Your task to perform on an android device: install app "Google Find My Device" Image 0: 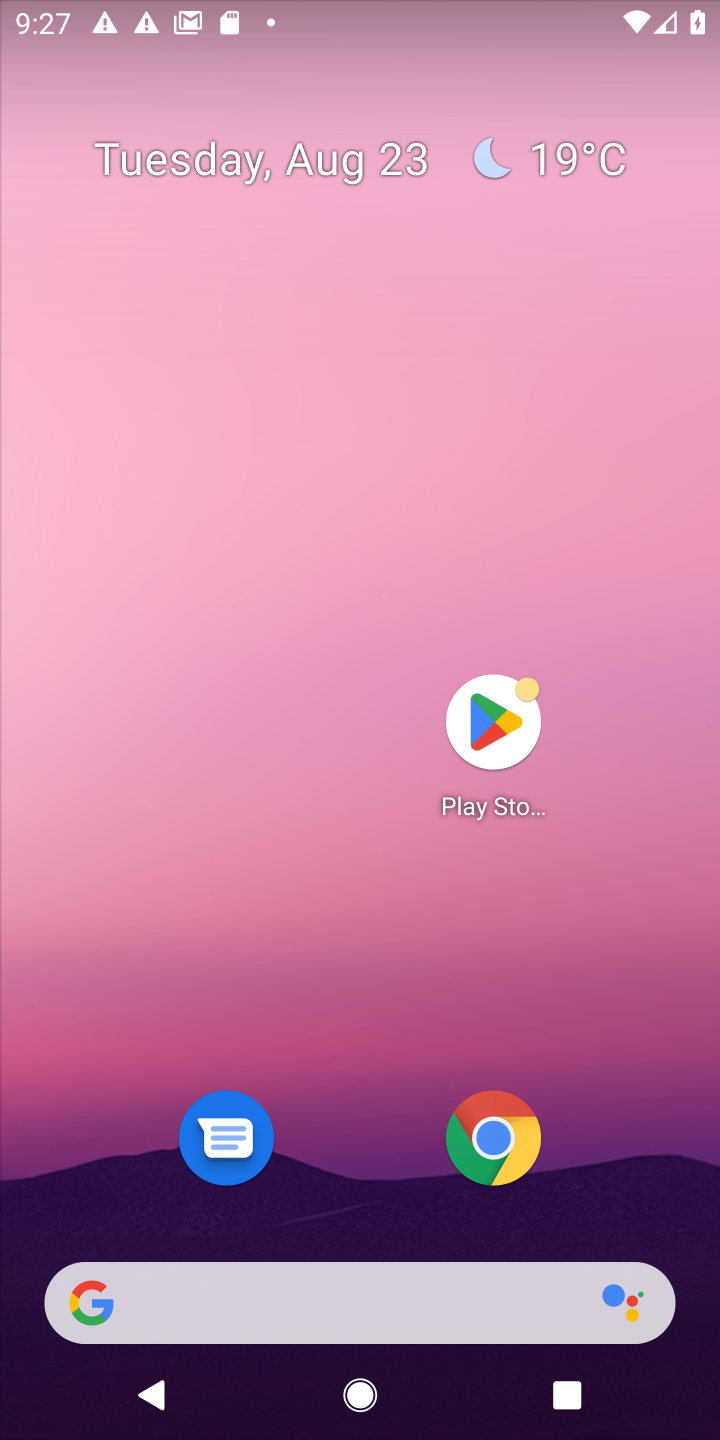
Step 0: press home button
Your task to perform on an android device: install app "Google Find My Device" Image 1: 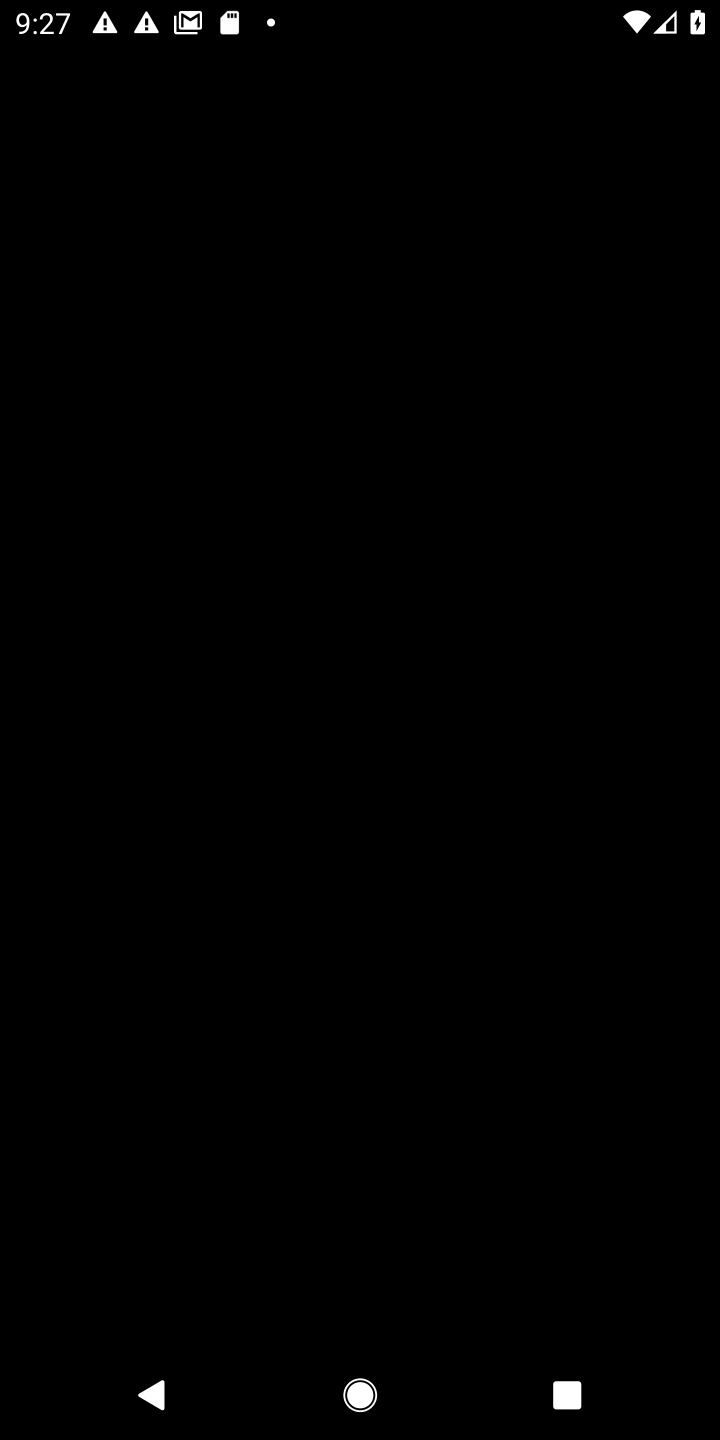
Step 1: press home button
Your task to perform on an android device: install app "Google Find My Device" Image 2: 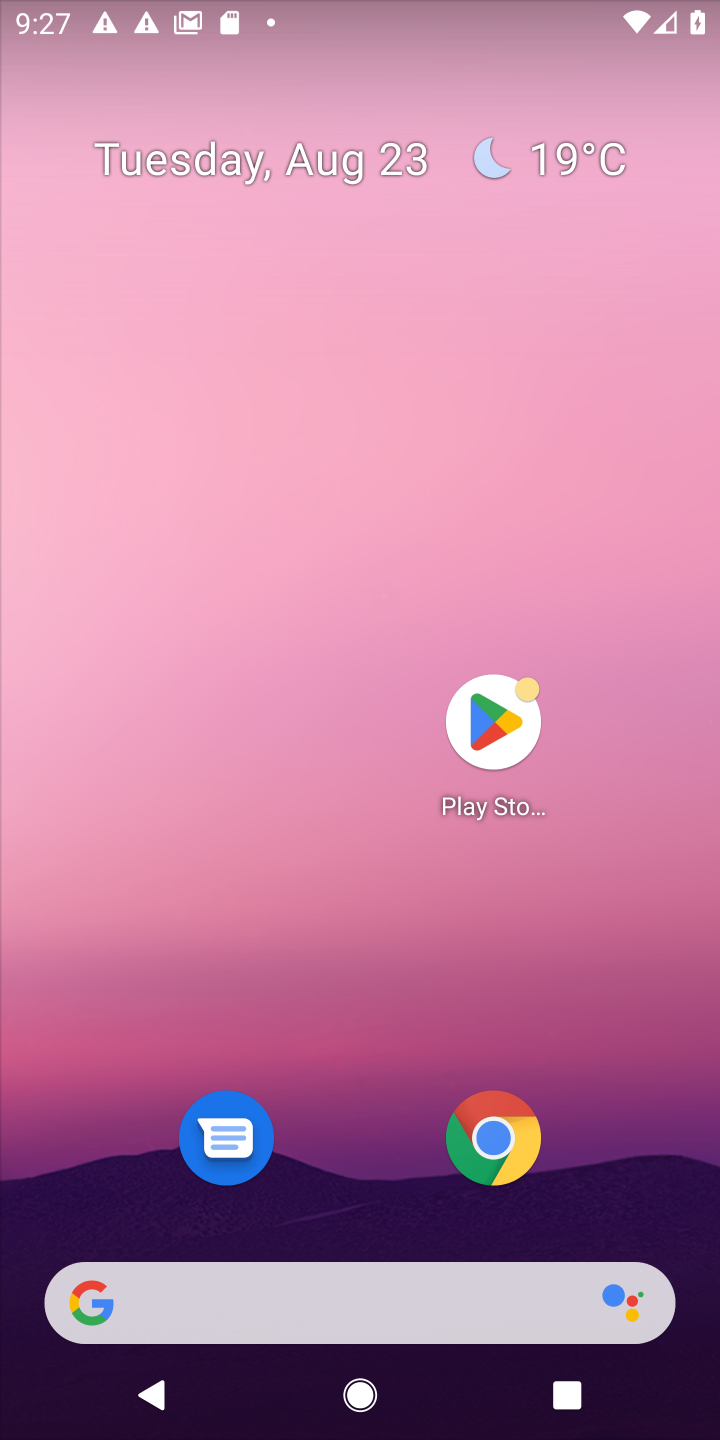
Step 2: click (457, 726)
Your task to perform on an android device: install app "Google Find My Device" Image 3: 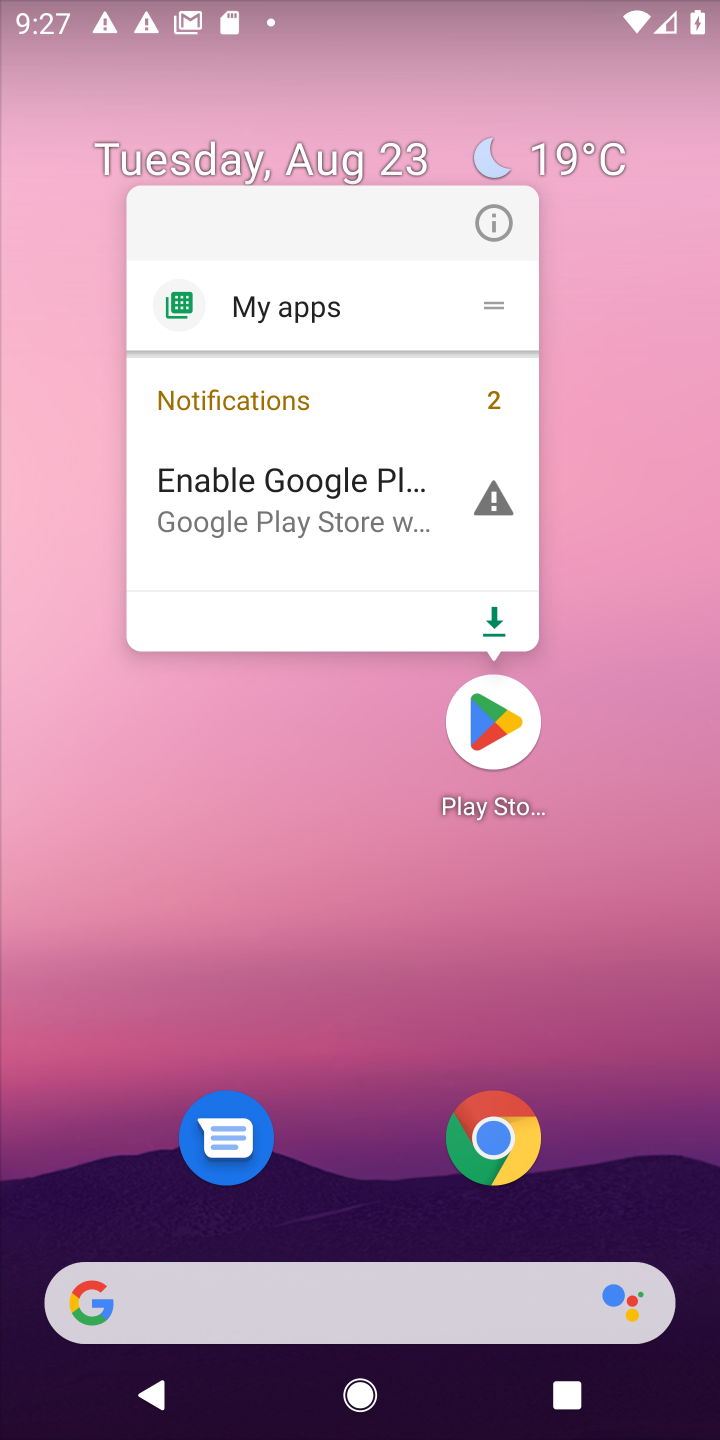
Step 3: click (502, 724)
Your task to perform on an android device: install app "Google Find My Device" Image 4: 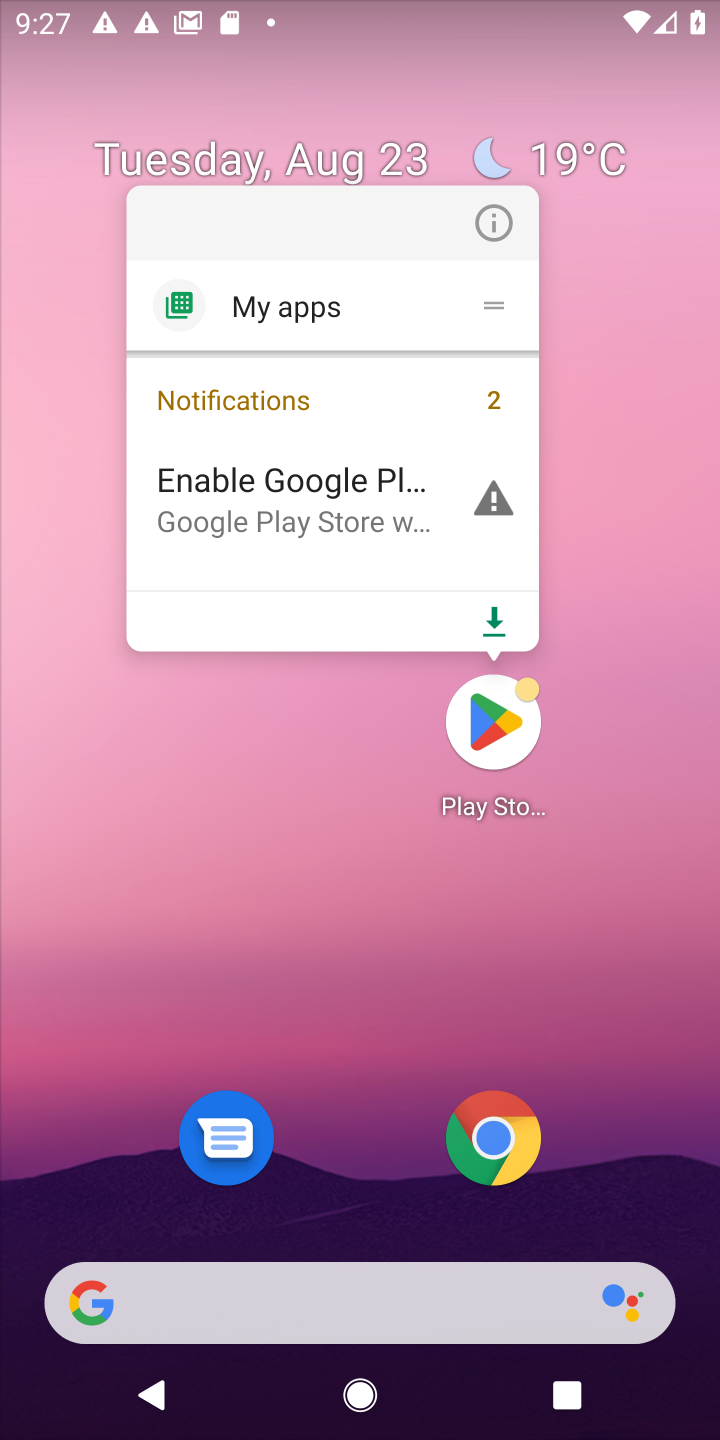
Step 4: click (502, 734)
Your task to perform on an android device: install app "Google Find My Device" Image 5: 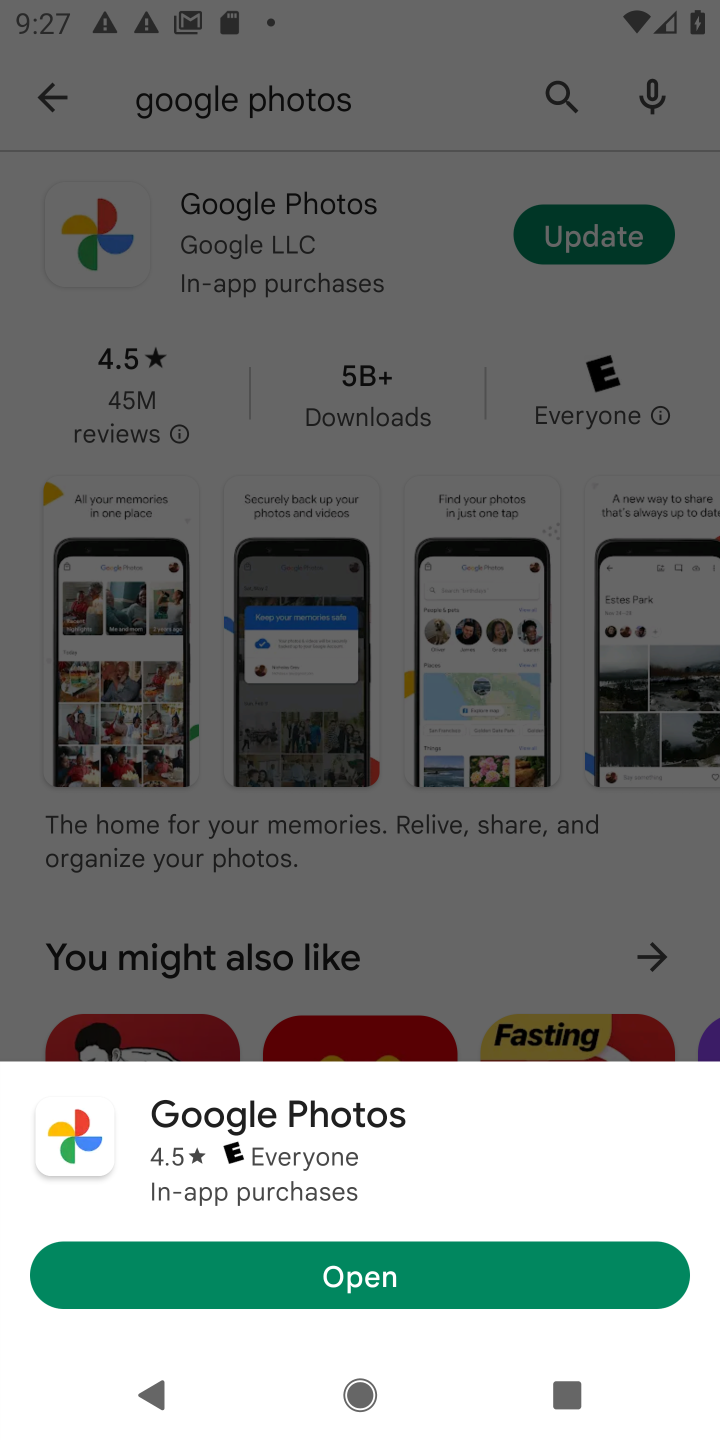
Step 5: click (558, 86)
Your task to perform on an android device: install app "Google Find My Device" Image 6: 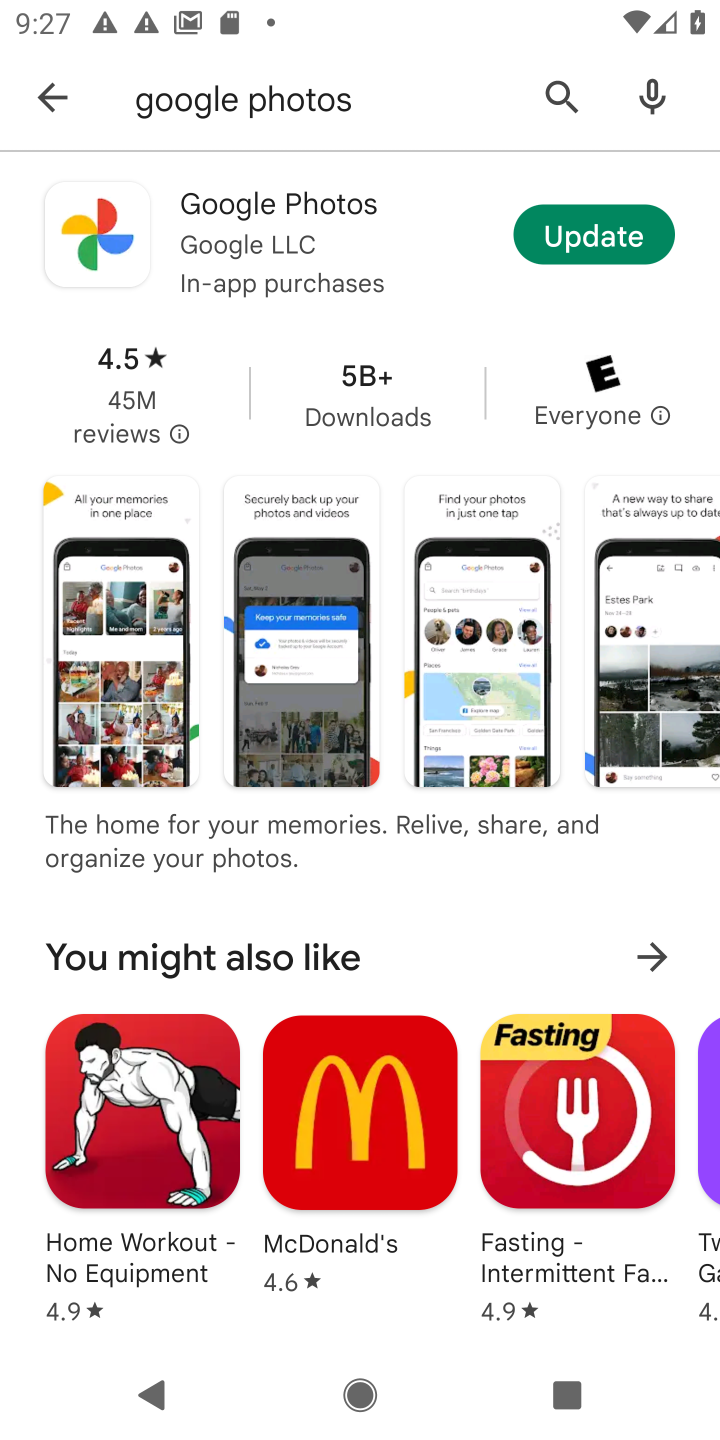
Step 6: click (558, 90)
Your task to perform on an android device: install app "Google Find My Device" Image 7: 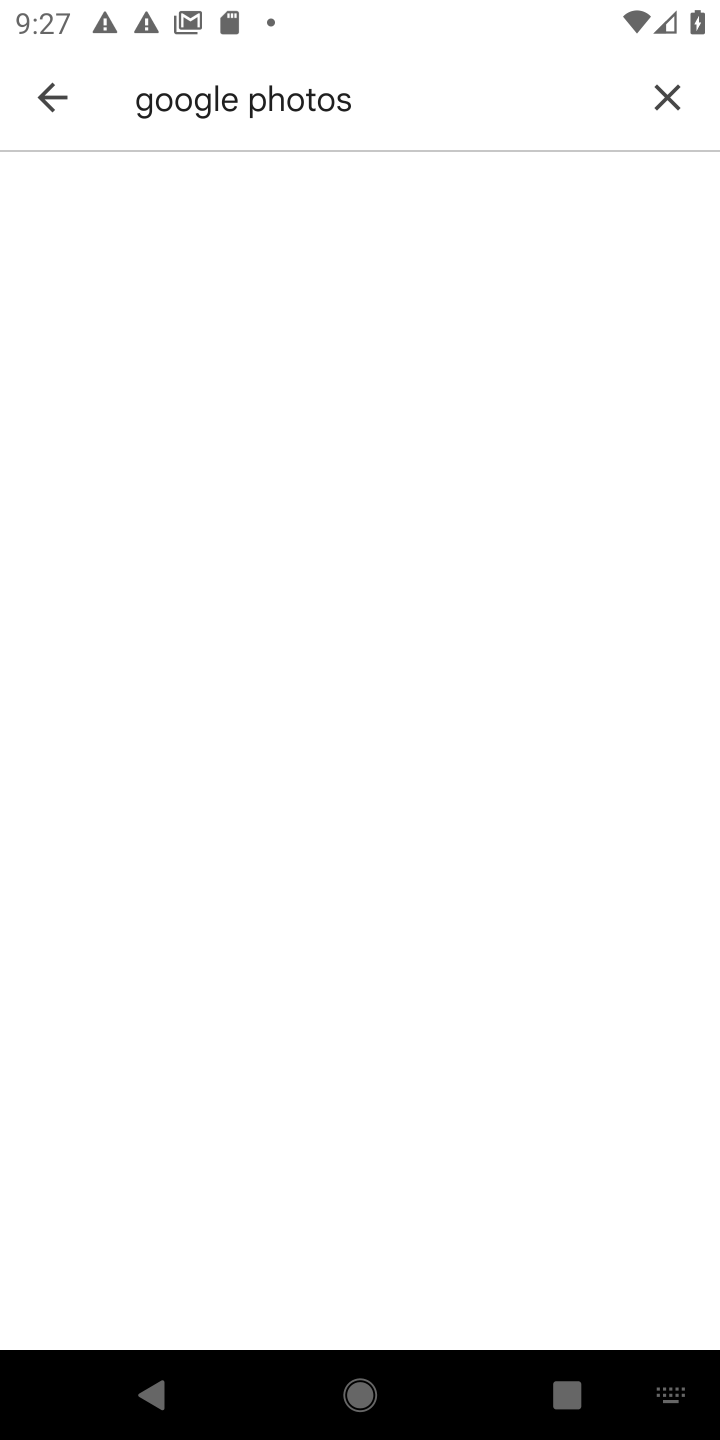
Step 7: click (563, 97)
Your task to perform on an android device: install app "Google Find My Device" Image 8: 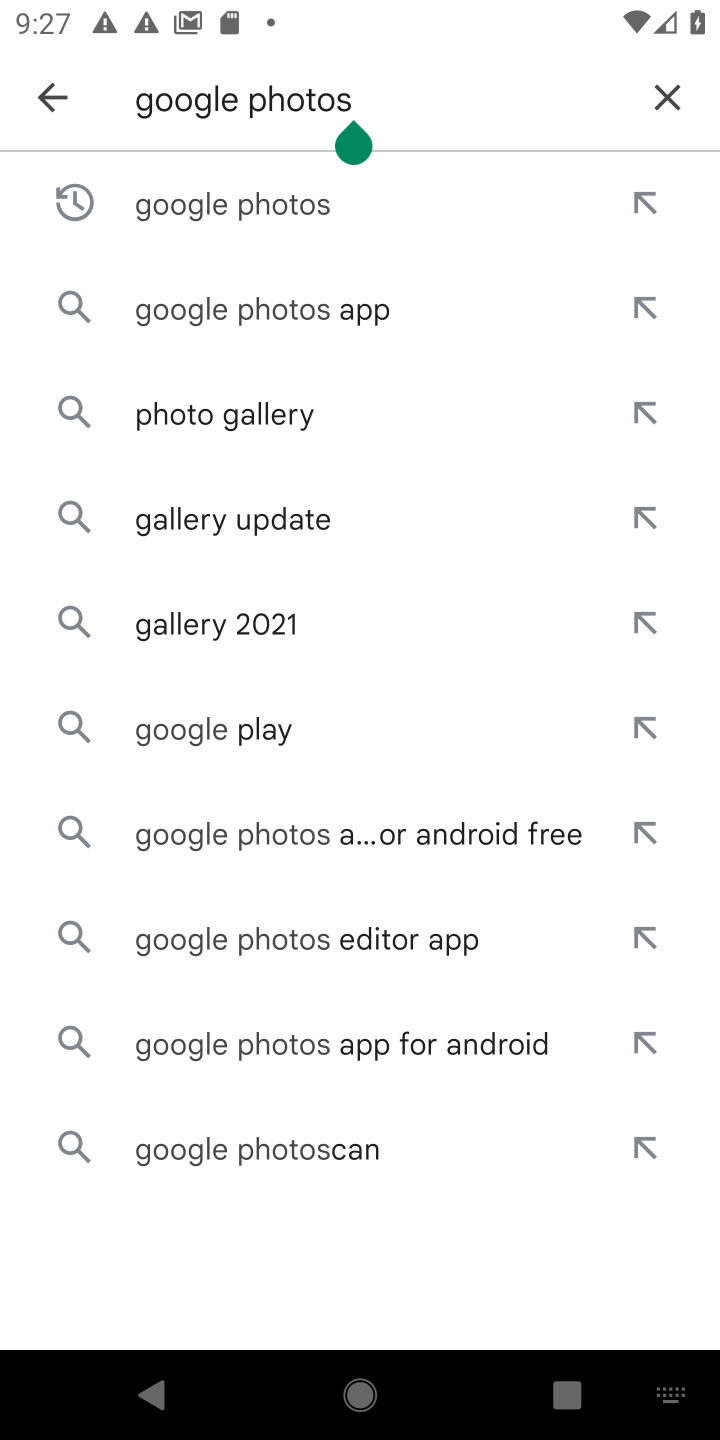
Step 8: click (670, 90)
Your task to perform on an android device: install app "Google Find My Device" Image 9: 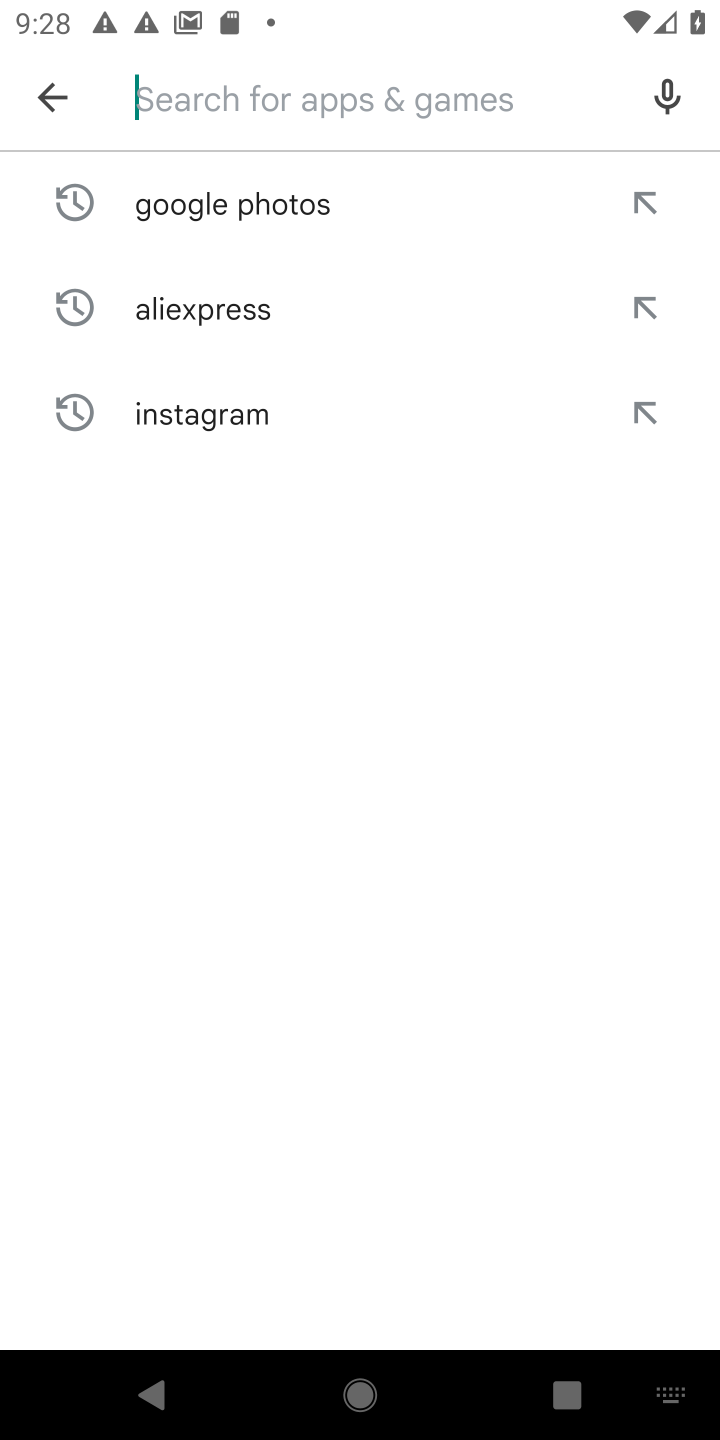
Step 9: type "Google Find My Device"
Your task to perform on an android device: install app "Google Find My Device" Image 10: 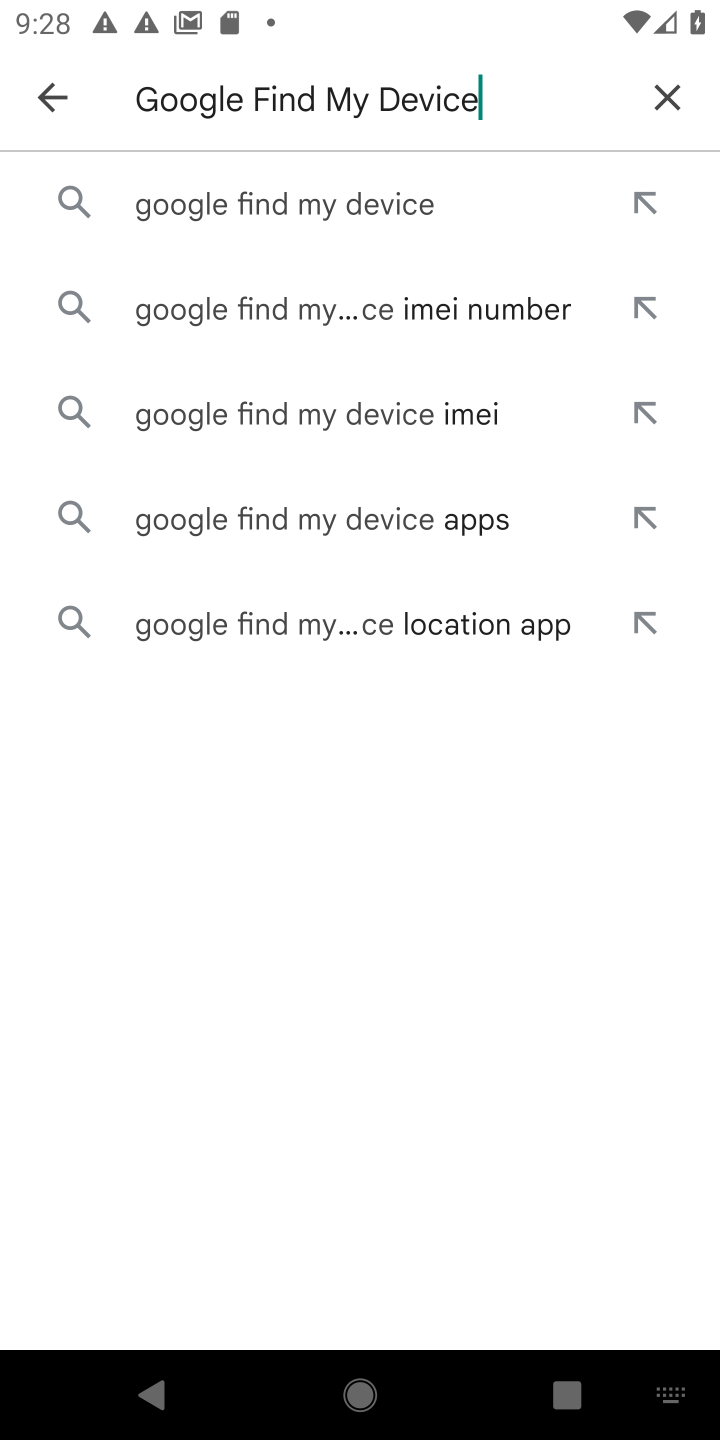
Step 10: click (296, 191)
Your task to perform on an android device: install app "Google Find My Device" Image 11: 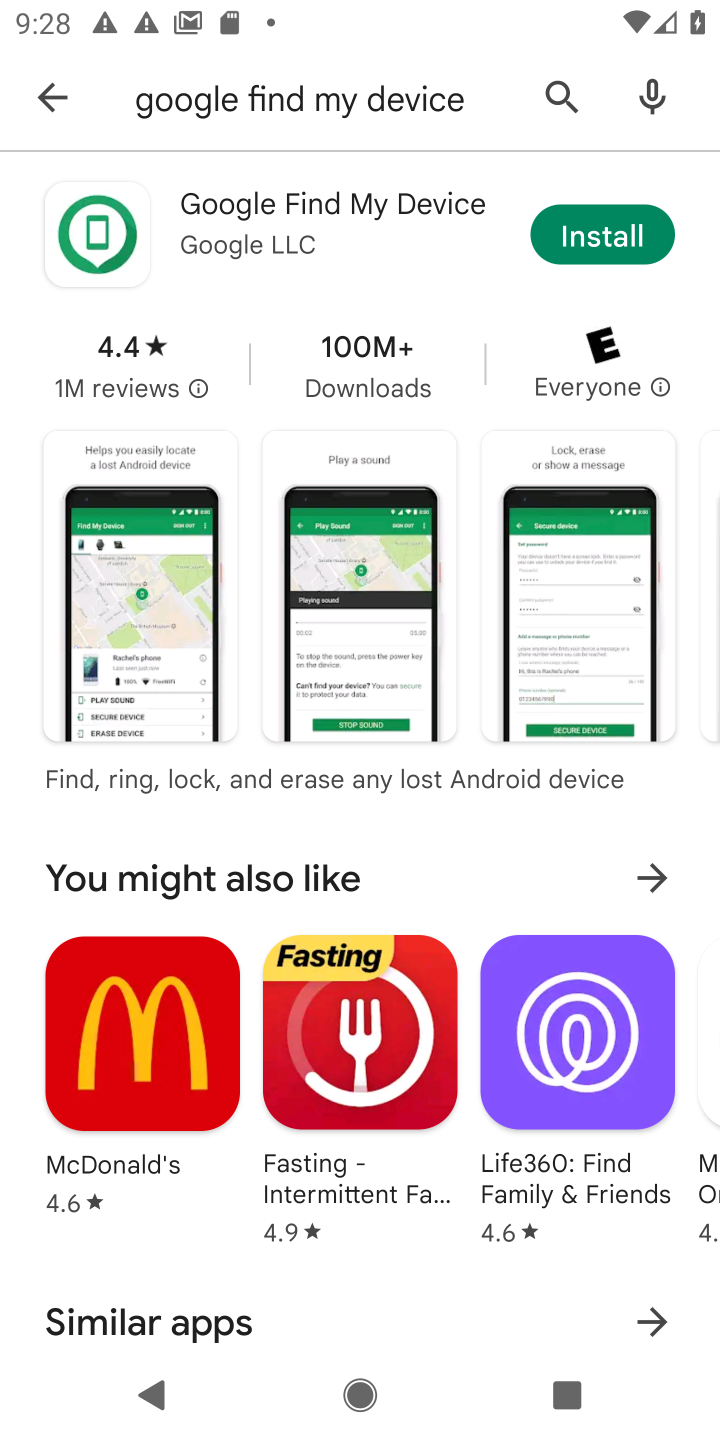
Step 11: click (594, 236)
Your task to perform on an android device: install app "Google Find My Device" Image 12: 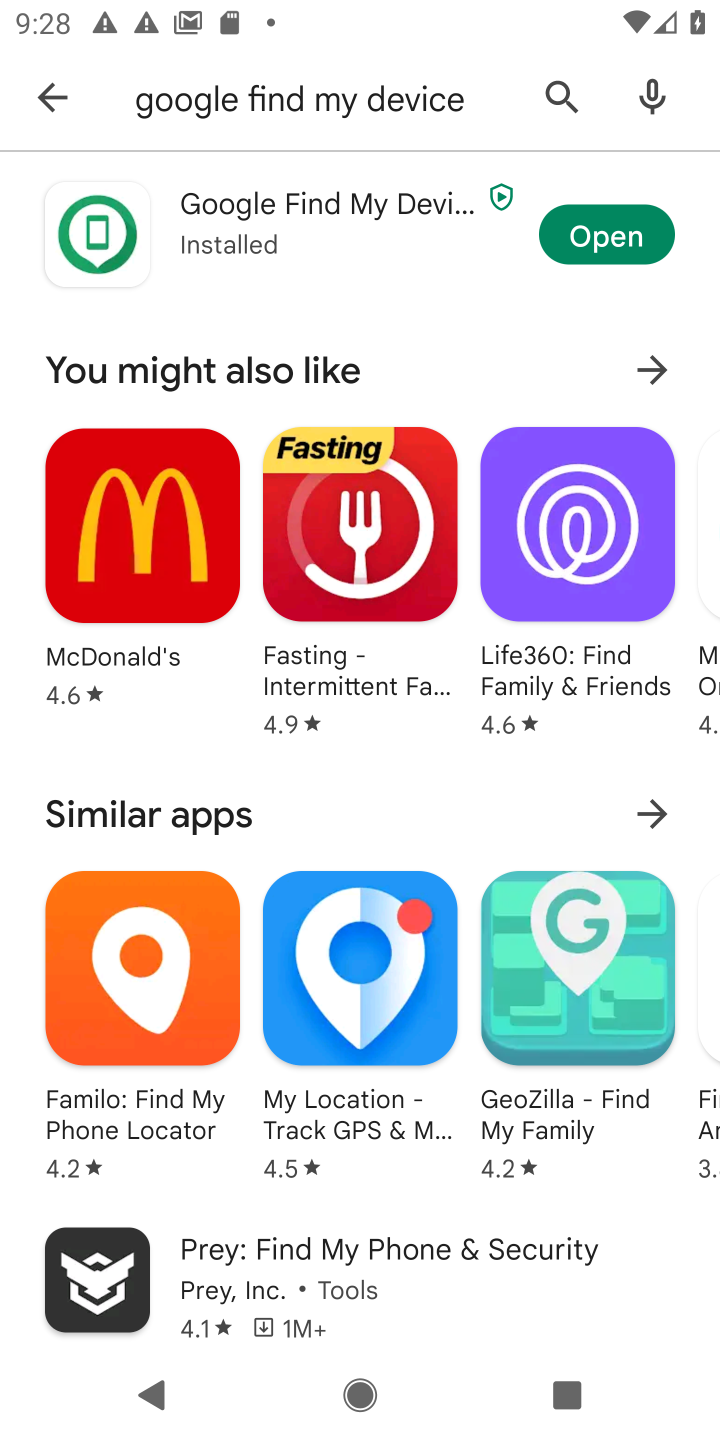
Step 12: task complete